Your task to perform on an android device: Go to internet settings Image 0: 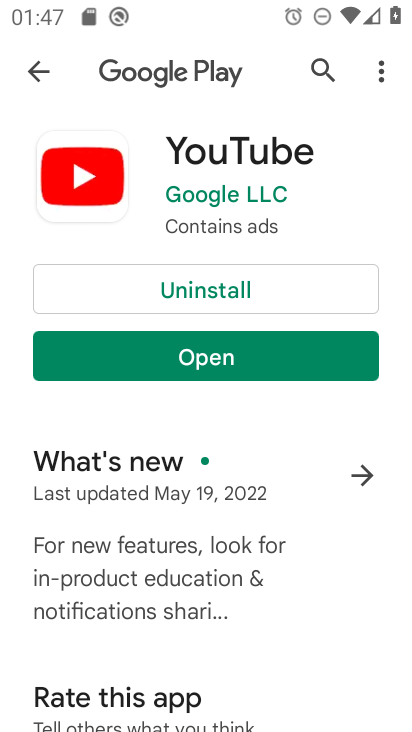
Step 0: press home button
Your task to perform on an android device: Go to internet settings Image 1: 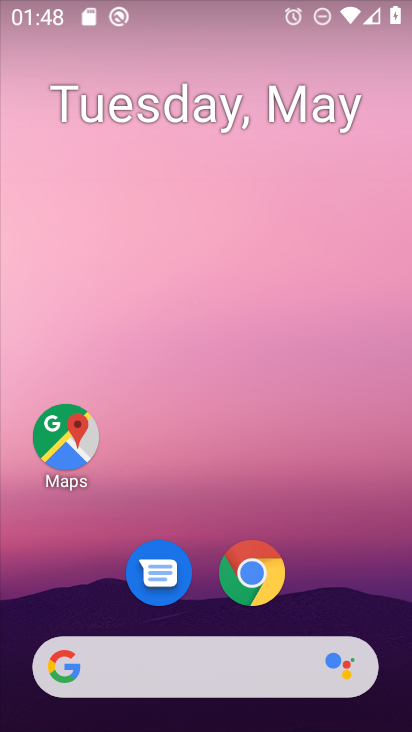
Step 1: drag from (258, 716) to (178, 2)
Your task to perform on an android device: Go to internet settings Image 2: 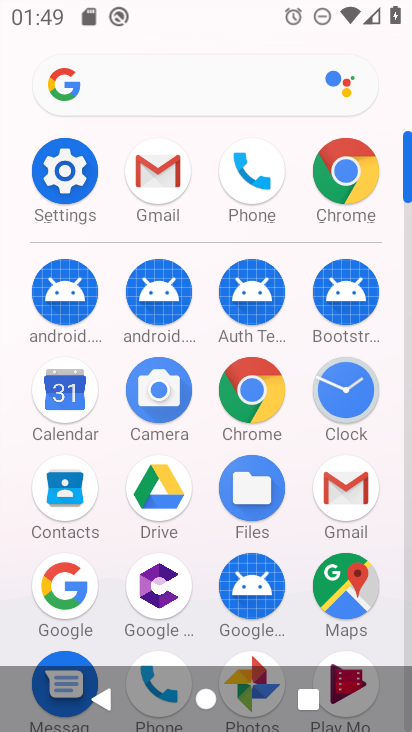
Step 2: click (35, 170)
Your task to perform on an android device: Go to internet settings Image 3: 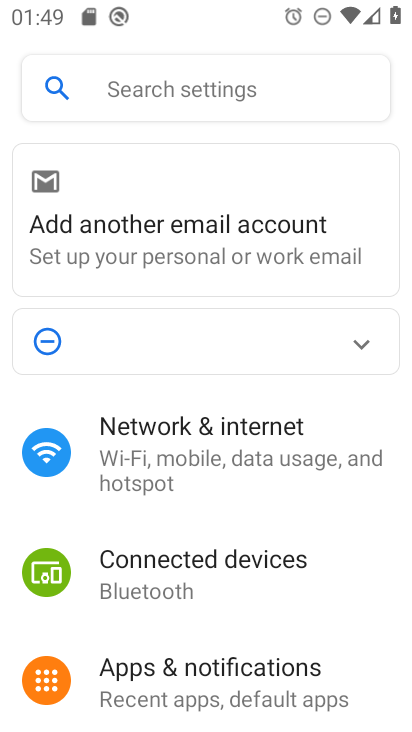
Step 3: click (242, 445)
Your task to perform on an android device: Go to internet settings Image 4: 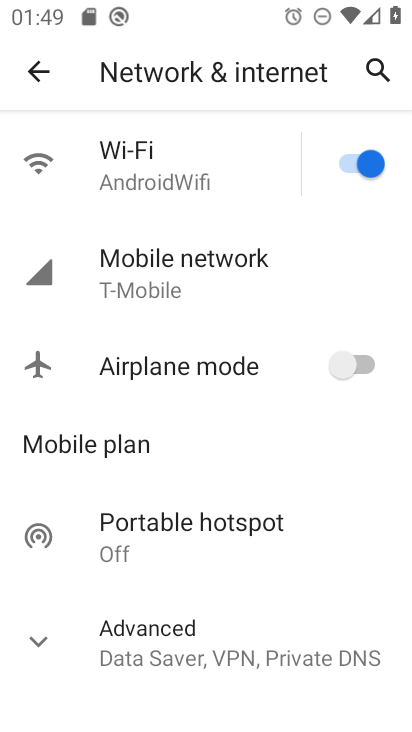
Step 4: task complete